Your task to perform on an android device: change your default location settings in chrome Image 0: 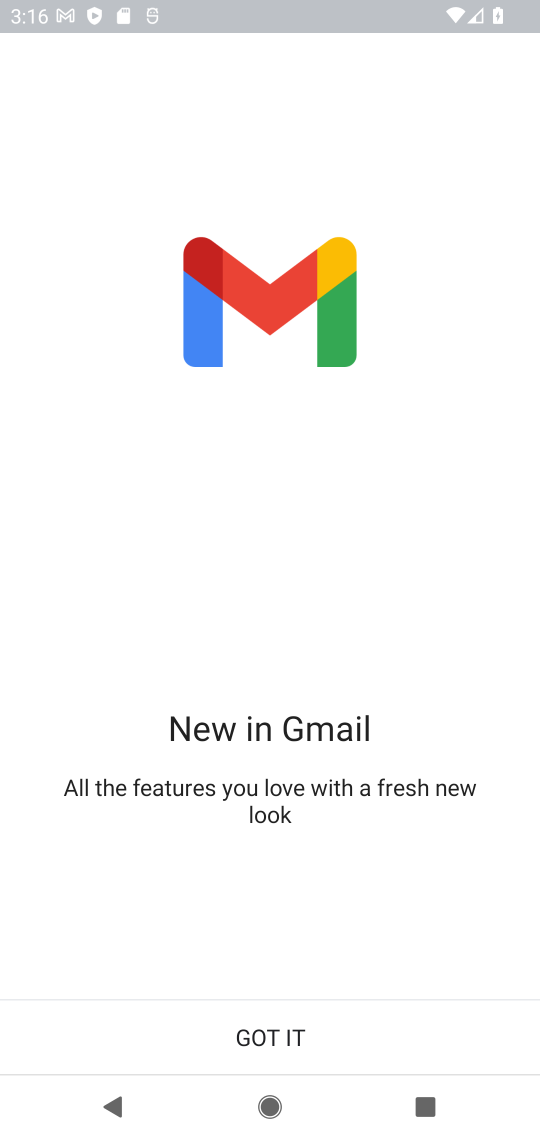
Step 0: press home button
Your task to perform on an android device: change your default location settings in chrome Image 1: 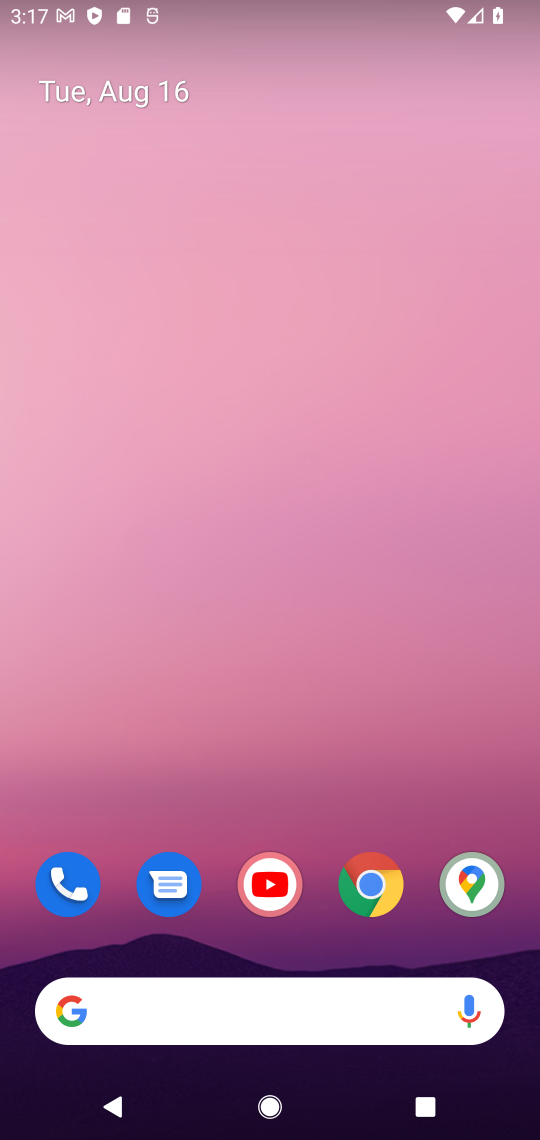
Step 1: click (369, 877)
Your task to perform on an android device: change your default location settings in chrome Image 2: 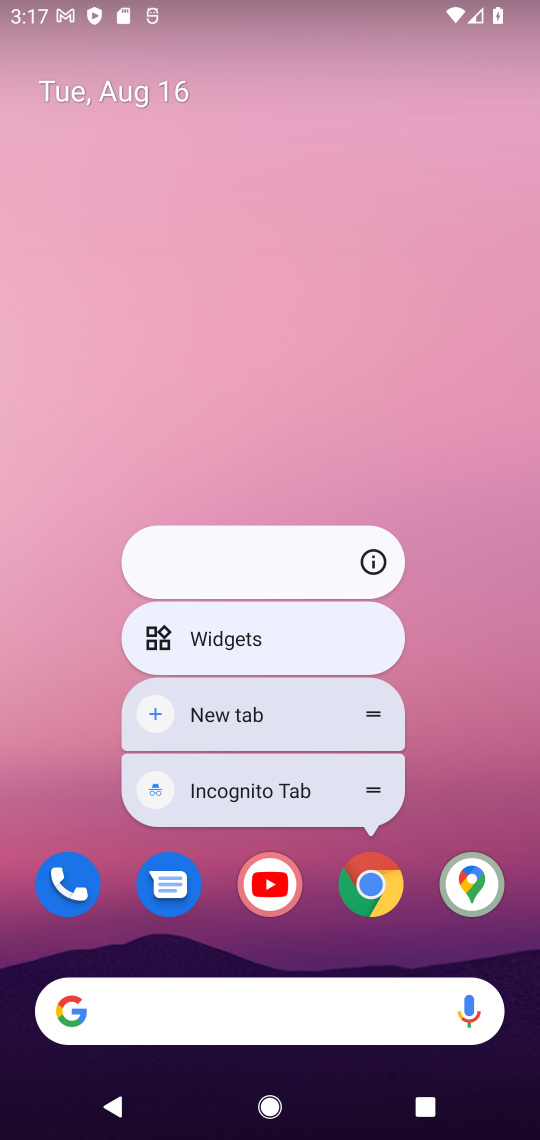
Step 2: click (378, 900)
Your task to perform on an android device: change your default location settings in chrome Image 3: 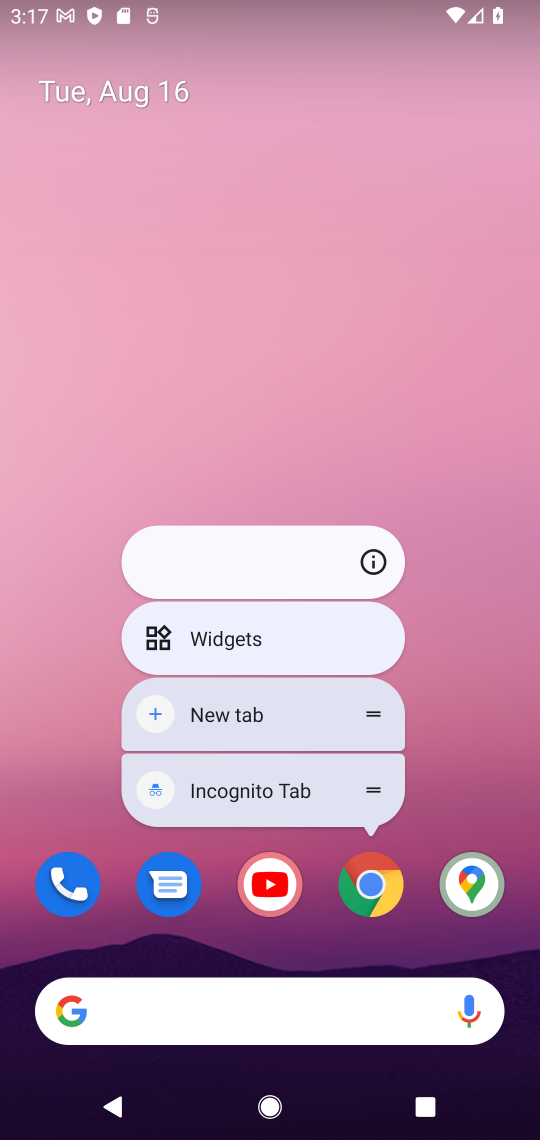
Step 3: click (378, 900)
Your task to perform on an android device: change your default location settings in chrome Image 4: 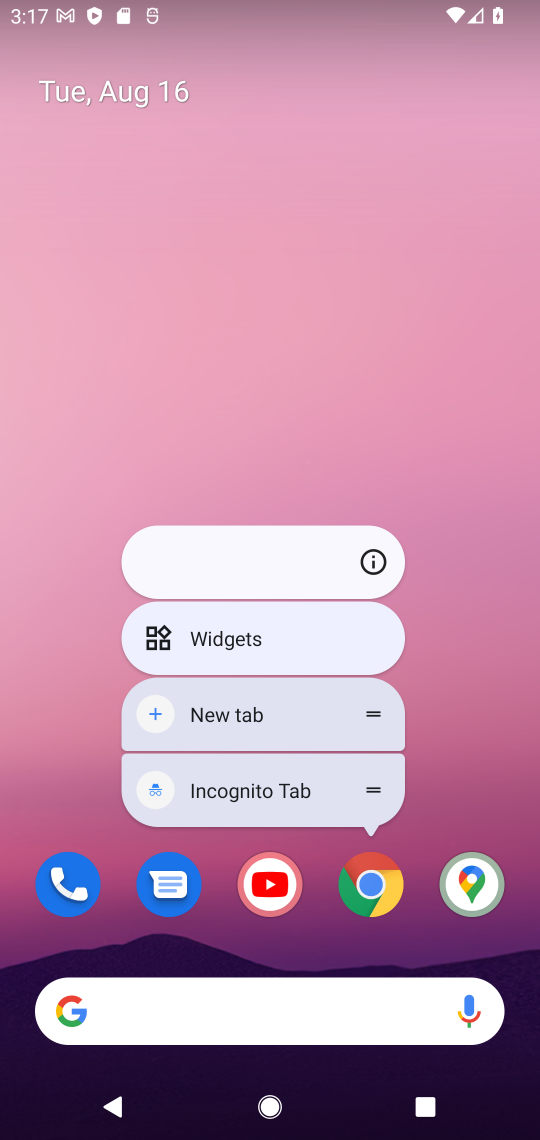
Step 4: click (378, 900)
Your task to perform on an android device: change your default location settings in chrome Image 5: 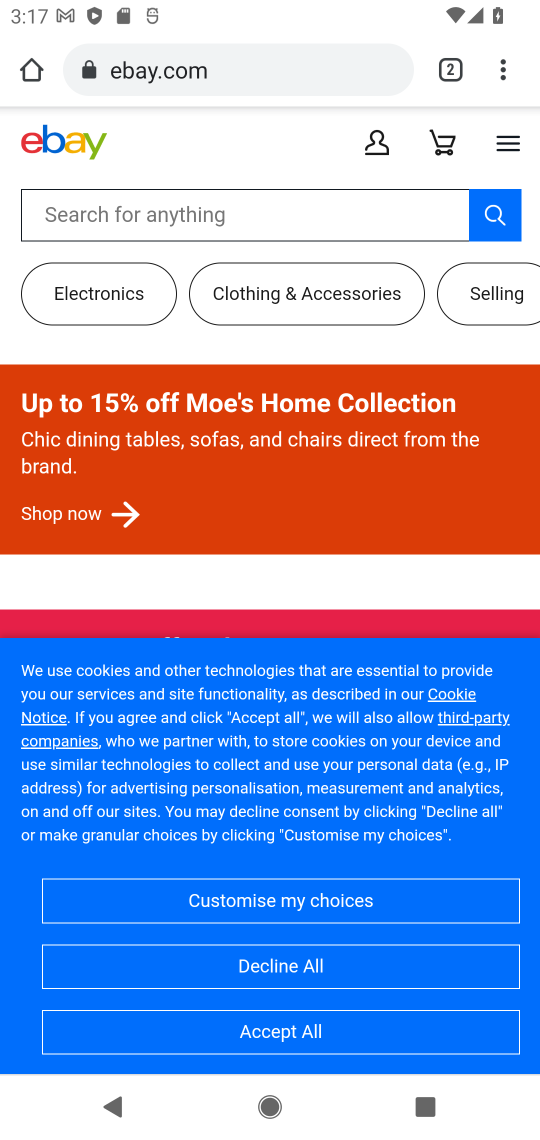
Step 5: click (494, 64)
Your task to perform on an android device: change your default location settings in chrome Image 6: 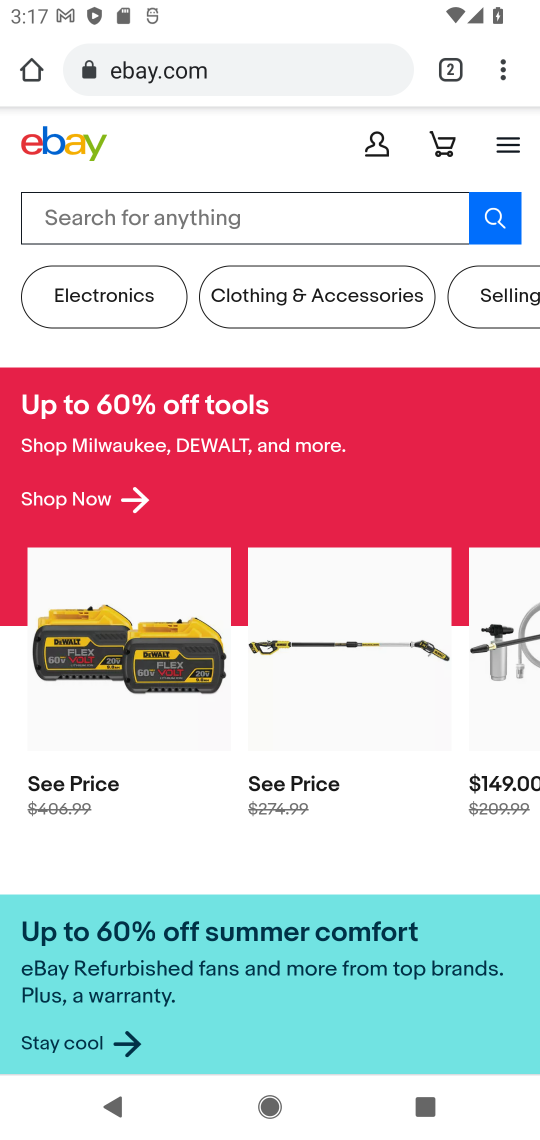
Step 6: click (499, 74)
Your task to perform on an android device: change your default location settings in chrome Image 7: 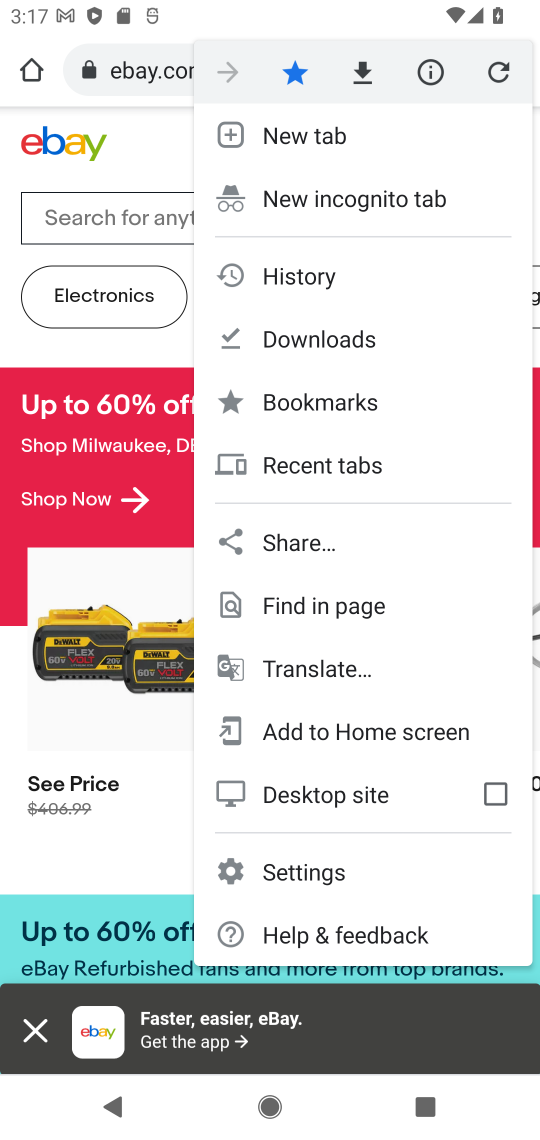
Step 7: click (345, 874)
Your task to perform on an android device: change your default location settings in chrome Image 8: 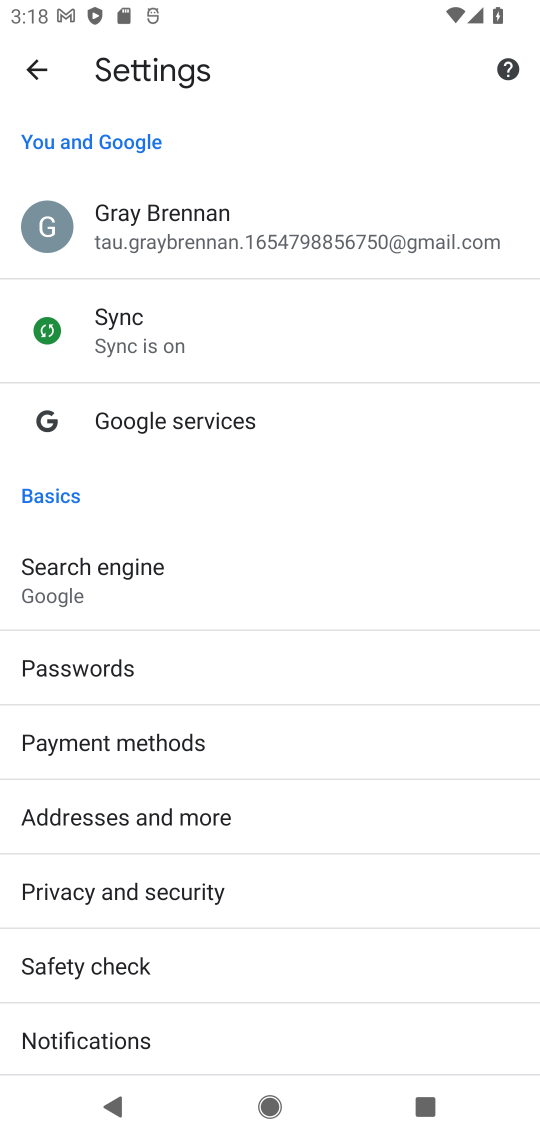
Step 8: drag from (233, 948) to (275, 570)
Your task to perform on an android device: change your default location settings in chrome Image 9: 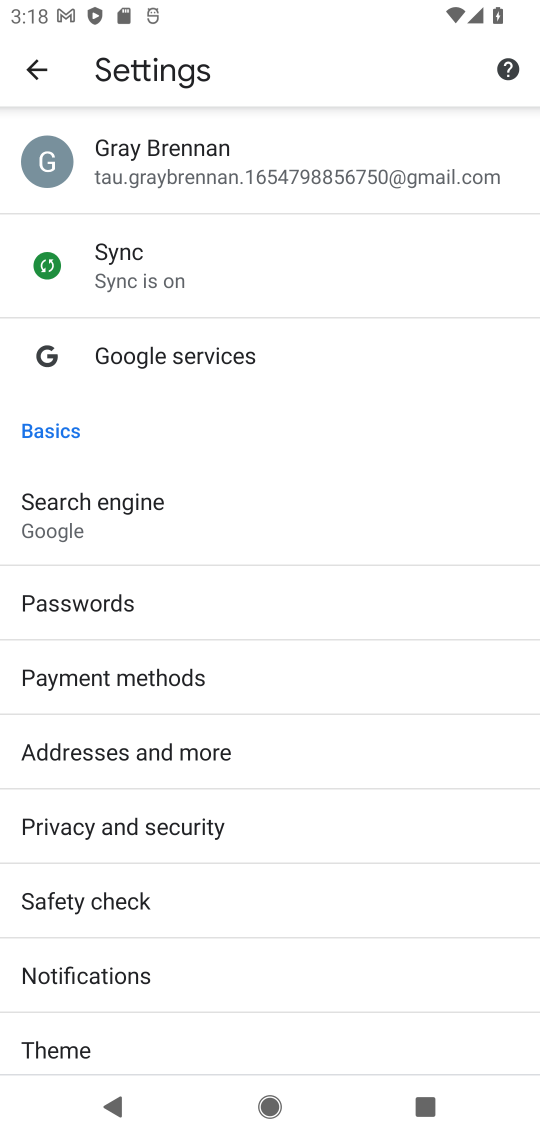
Step 9: drag from (255, 930) to (300, 576)
Your task to perform on an android device: change your default location settings in chrome Image 10: 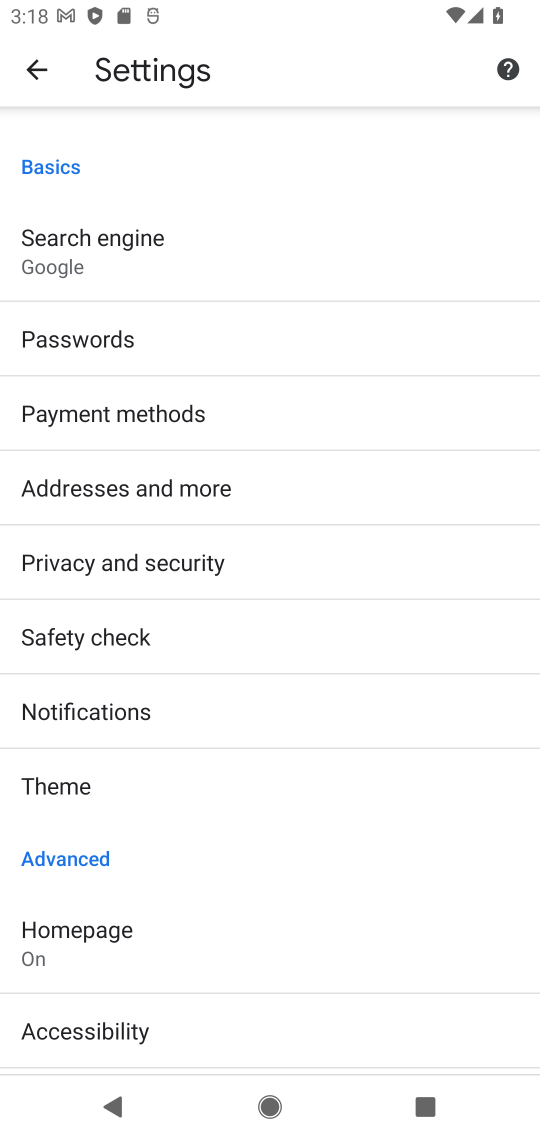
Step 10: drag from (203, 943) to (317, 368)
Your task to perform on an android device: change your default location settings in chrome Image 11: 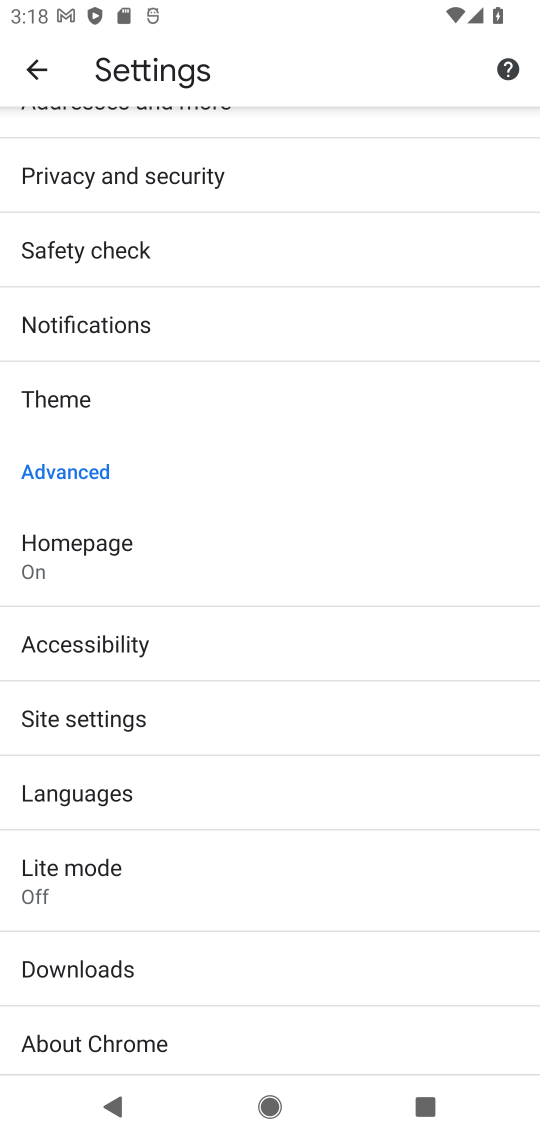
Step 11: click (203, 751)
Your task to perform on an android device: change your default location settings in chrome Image 12: 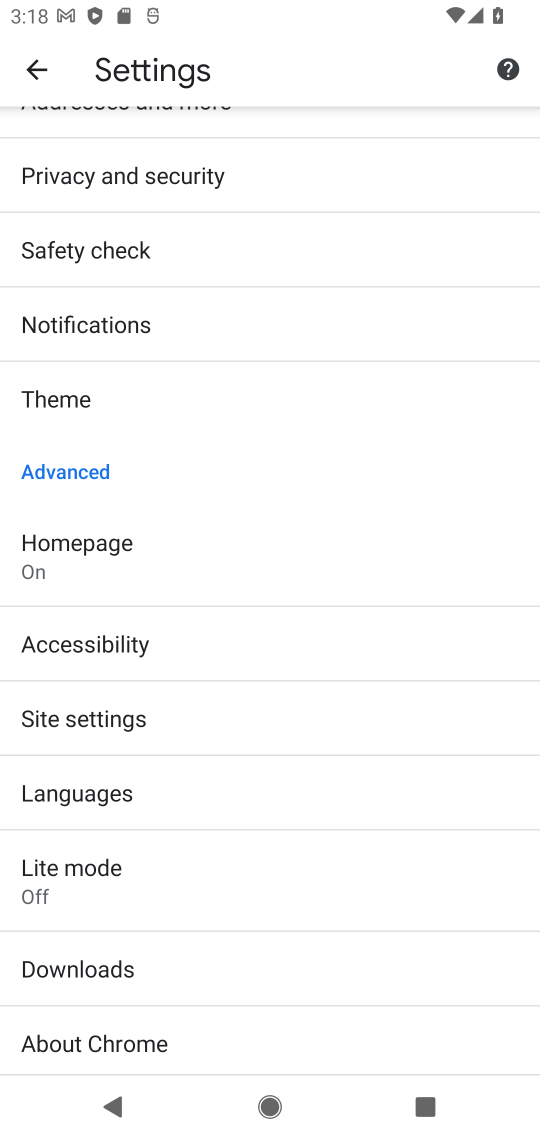
Step 12: drag from (187, 705) to (213, 577)
Your task to perform on an android device: change your default location settings in chrome Image 13: 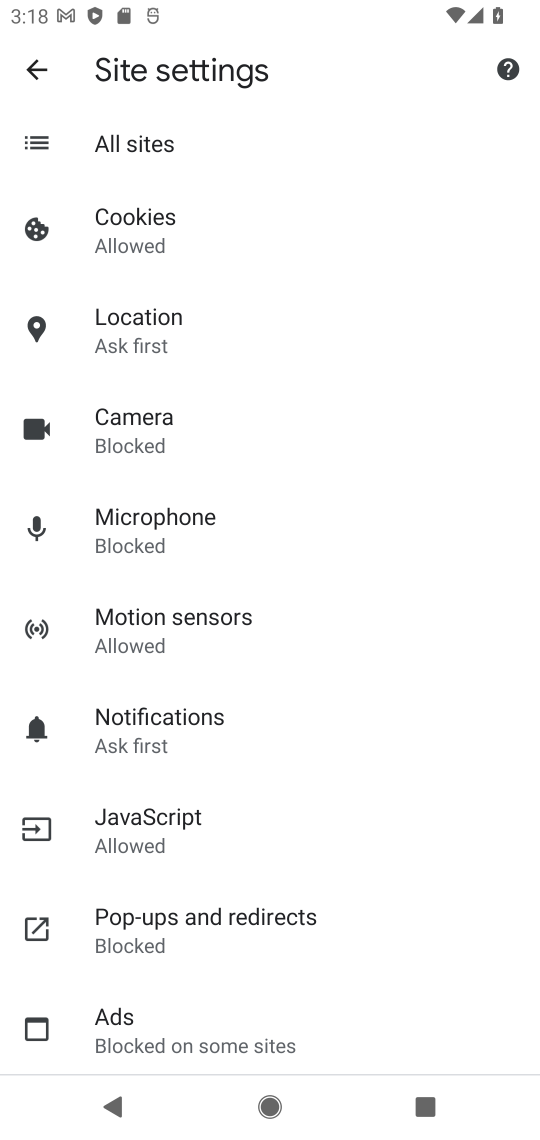
Step 13: click (188, 344)
Your task to perform on an android device: change your default location settings in chrome Image 14: 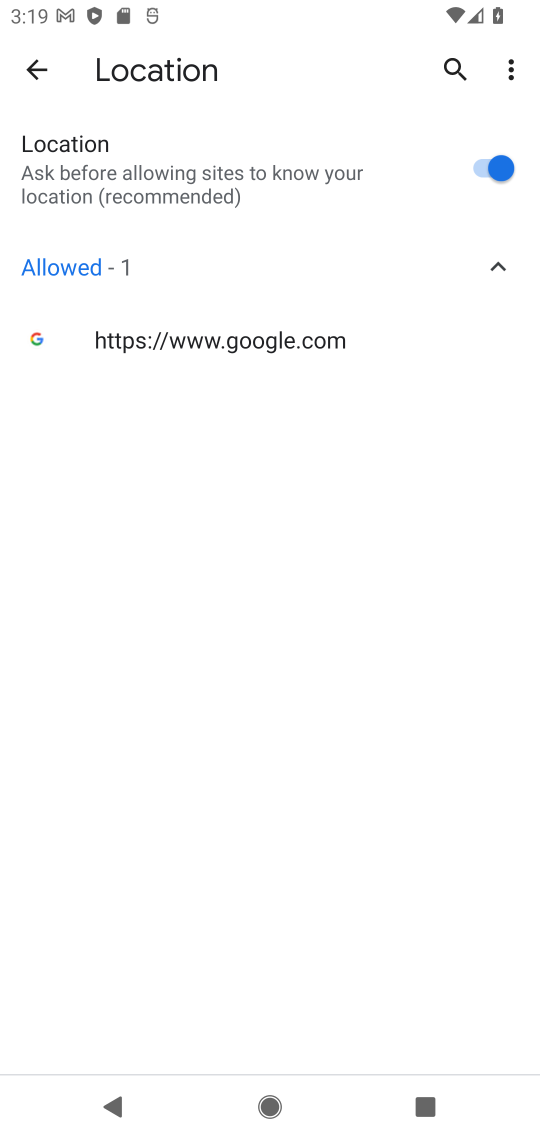
Step 14: click (467, 177)
Your task to perform on an android device: change your default location settings in chrome Image 15: 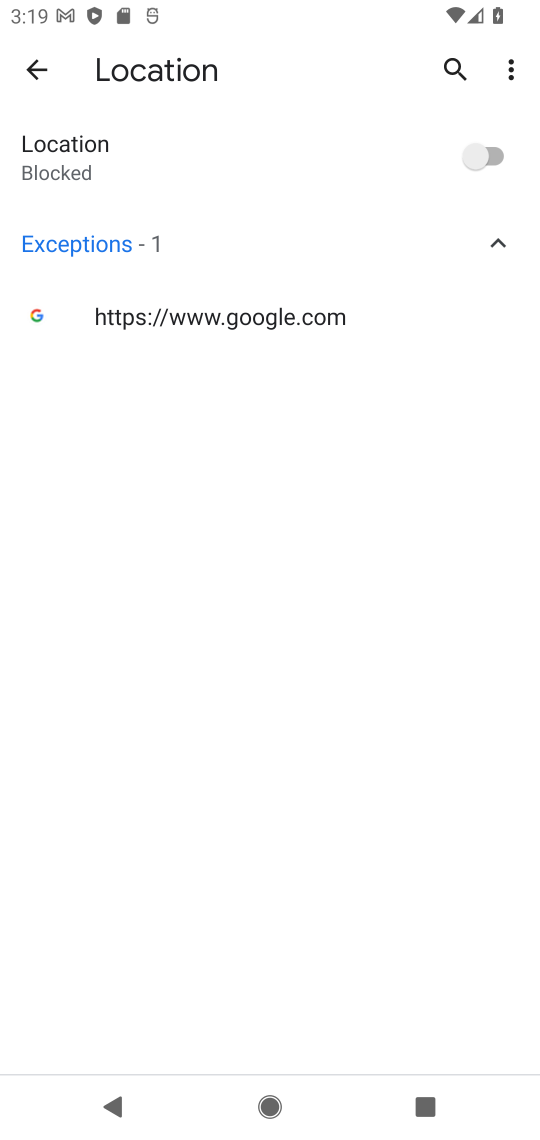
Step 15: task complete